Your task to perform on an android device: check google app version Image 0: 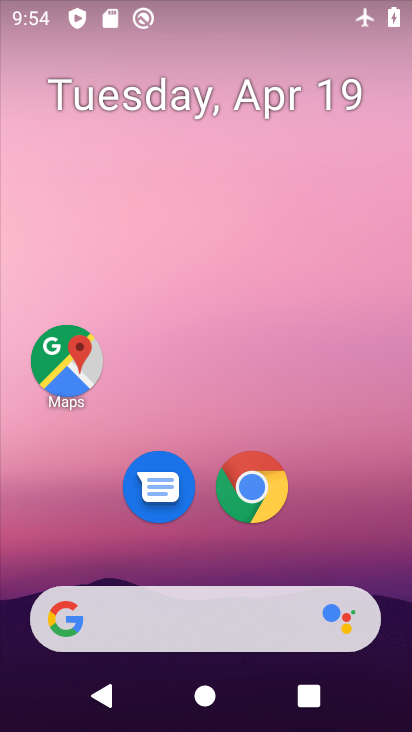
Step 0: drag from (306, 560) to (335, 94)
Your task to perform on an android device: check google app version Image 1: 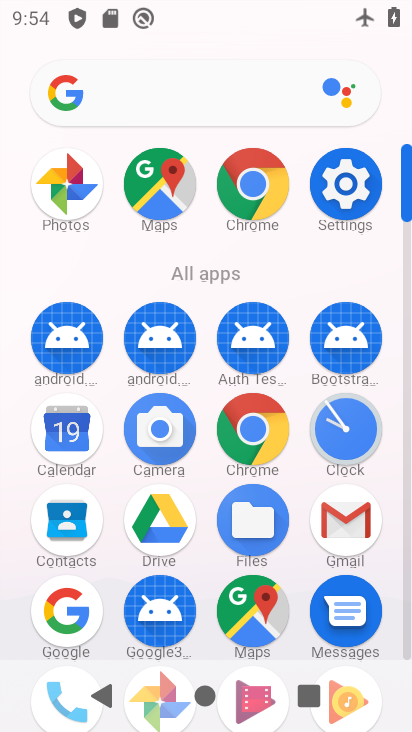
Step 1: click (61, 606)
Your task to perform on an android device: check google app version Image 2: 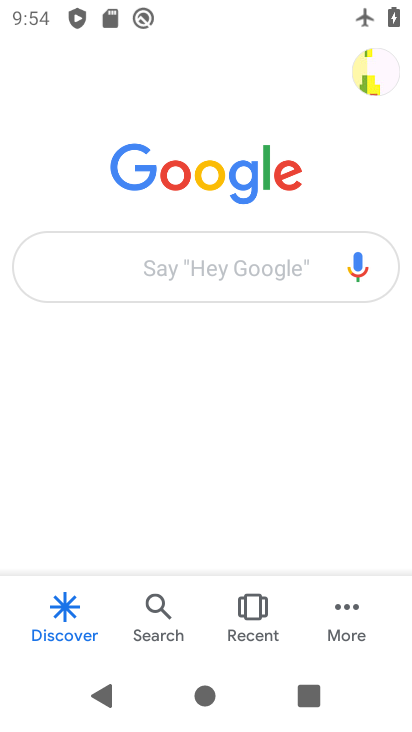
Step 2: click (346, 614)
Your task to perform on an android device: check google app version Image 3: 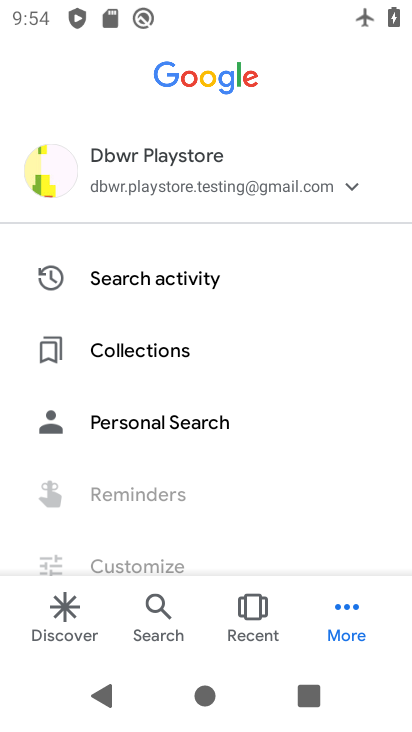
Step 3: drag from (190, 510) to (199, 245)
Your task to perform on an android device: check google app version Image 4: 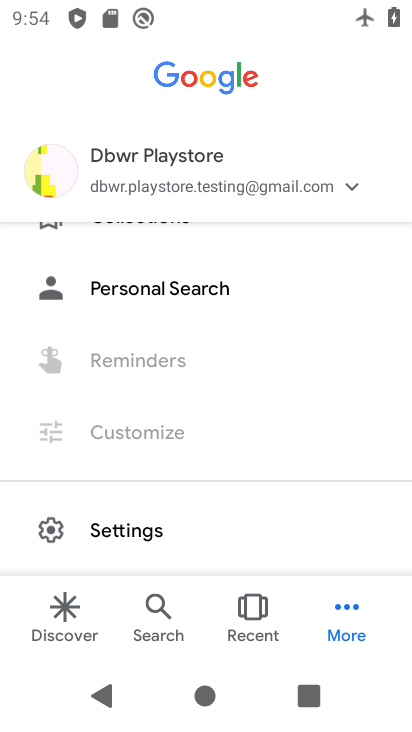
Step 4: click (163, 524)
Your task to perform on an android device: check google app version Image 5: 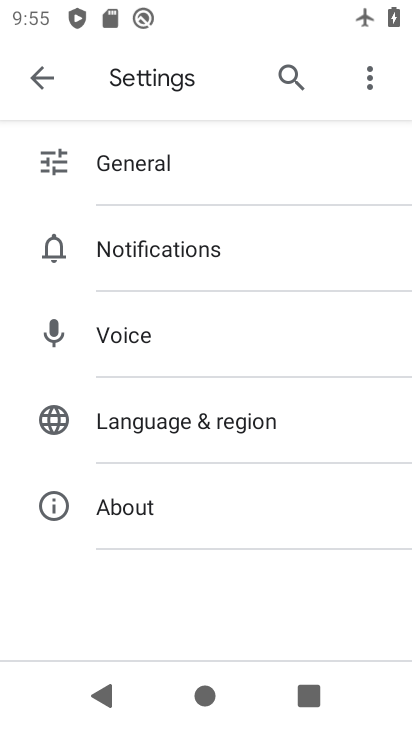
Step 5: click (156, 510)
Your task to perform on an android device: check google app version Image 6: 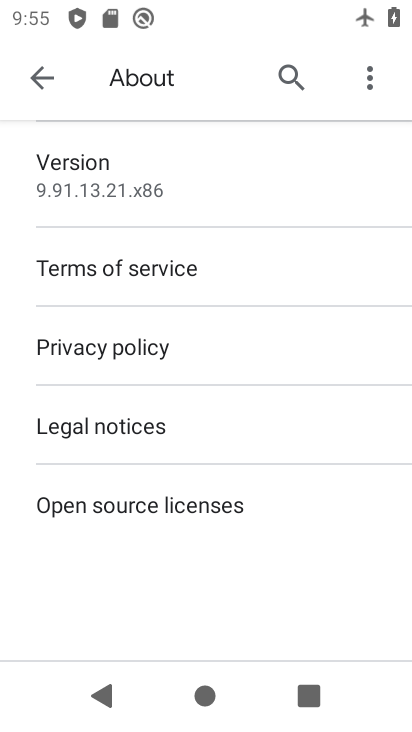
Step 6: click (174, 199)
Your task to perform on an android device: check google app version Image 7: 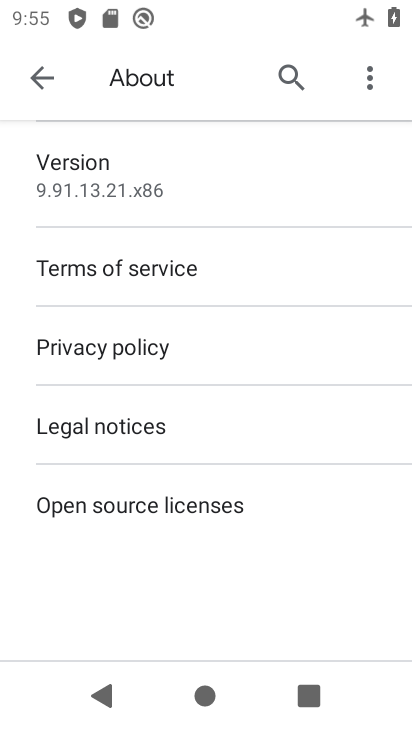
Step 7: task complete